Your task to perform on an android device: turn on the 12-hour format for clock Image 0: 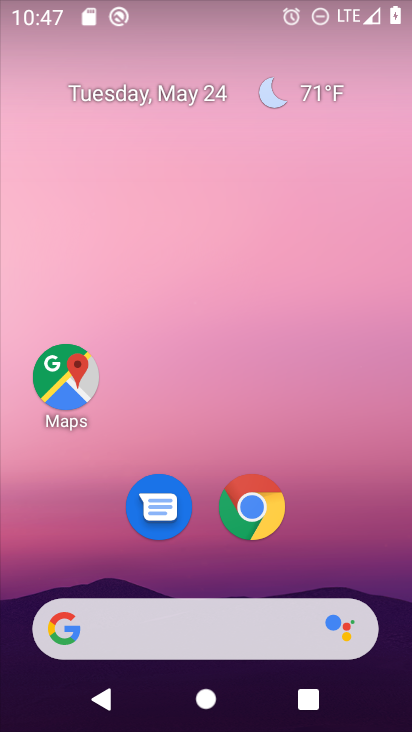
Step 0: drag from (239, 712) to (244, 83)
Your task to perform on an android device: turn on the 12-hour format for clock Image 1: 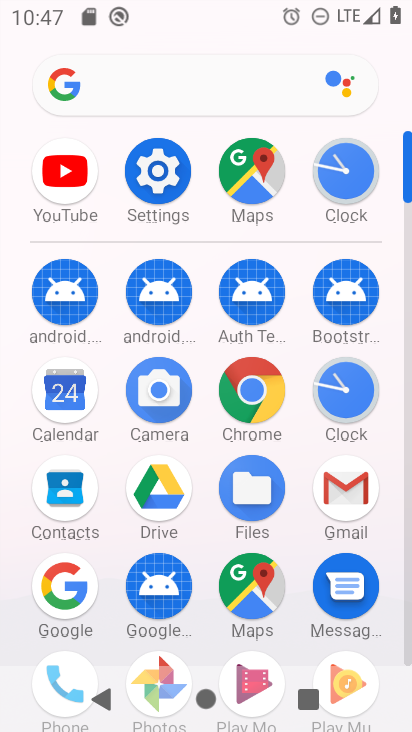
Step 1: click (346, 173)
Your task to perform on an android device: turn on the 12-hour format for clock Image 2: 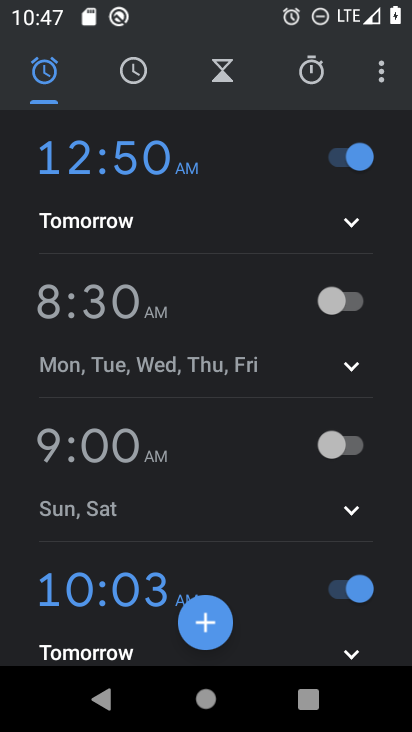
Step 2: click (378, 76)
Your task to perform on an android device: turn on the 12-hour format for clock Image 3: 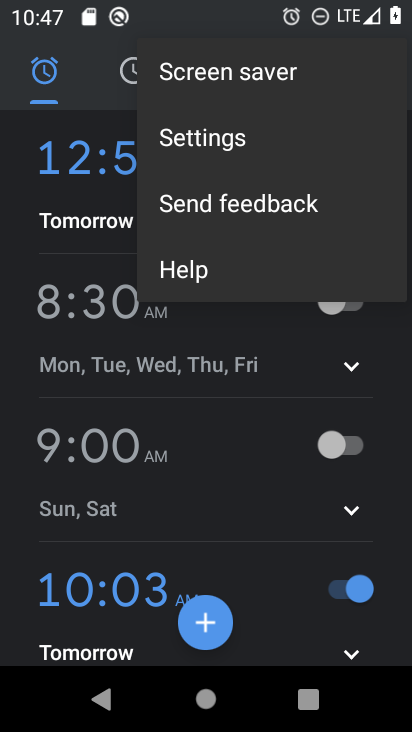
Step 3: click (220, 141)
Your task to perform on an android device: turn on the 12-hour format for clock Image 4: 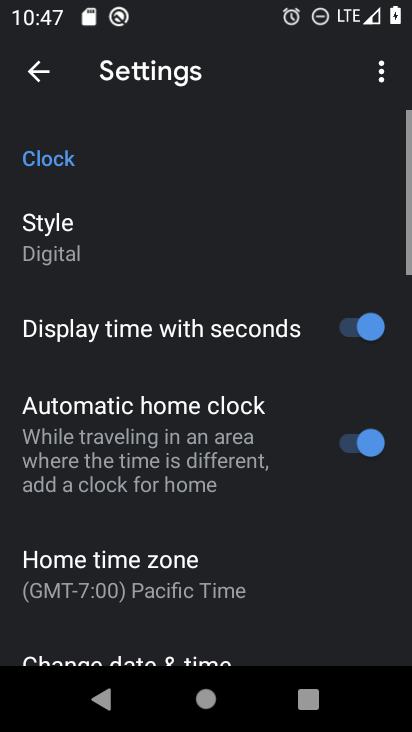
Step 4: drag from (123, 582) to (148, 228)
Your task to perform on an android device: turn on the 12-hour format for clock Image 5: 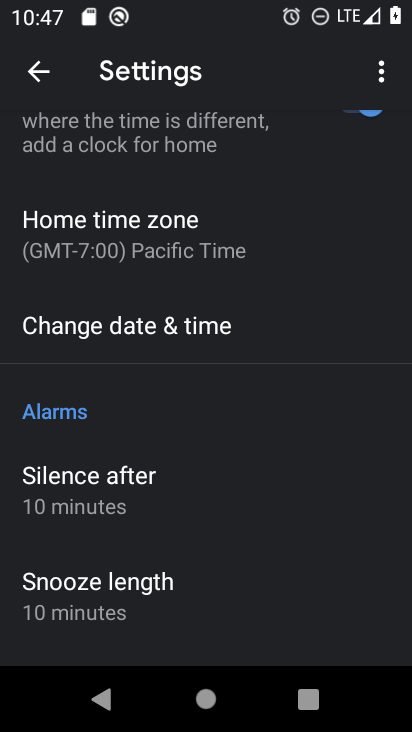
Step 5: click (143, 322)
Your task to perform on an android device: turn on the 12-hour format for clock Image 6: 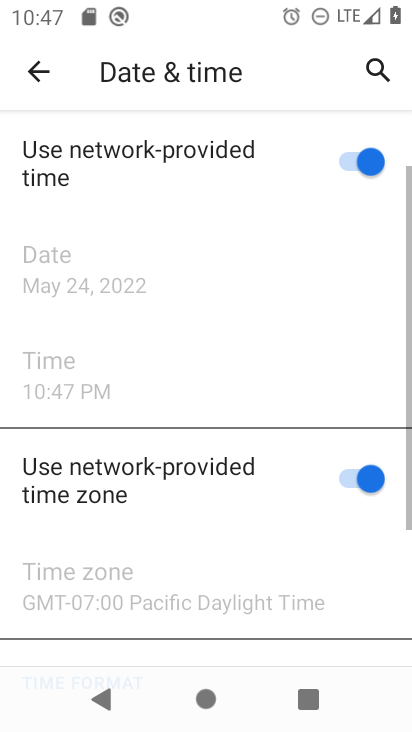
Step 6: task complete